Your task to perform on an android device: turn off location history Image 0: 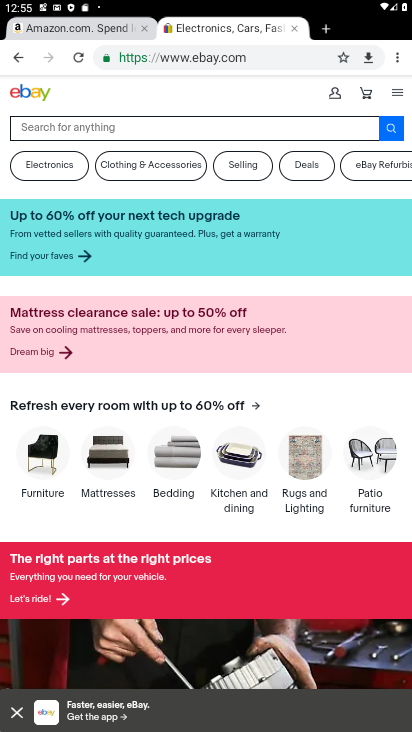
Step 0: press home button
Your task to perform on an android device: turn off location history Image 1: 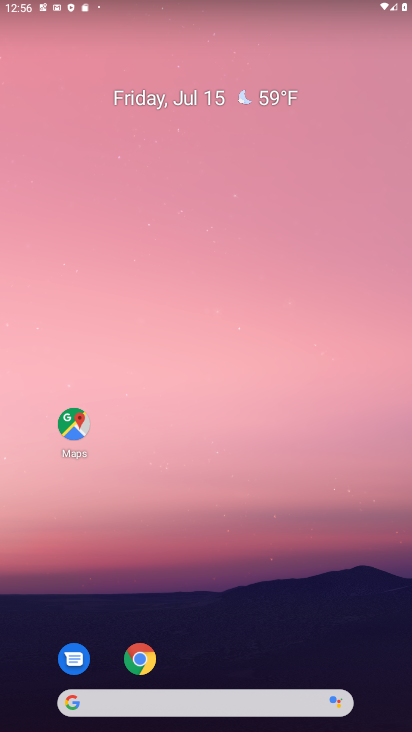
Step 1: drag from (241, 719) to (207, 183)
Your task to perform on an android device: turn off location history Image 2: 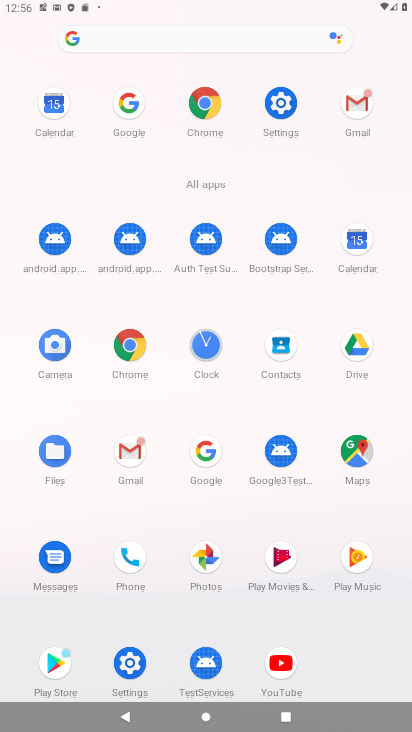
Step 2: click (278, 104)
Your task to perform on an android device: turn off location history Image 3: 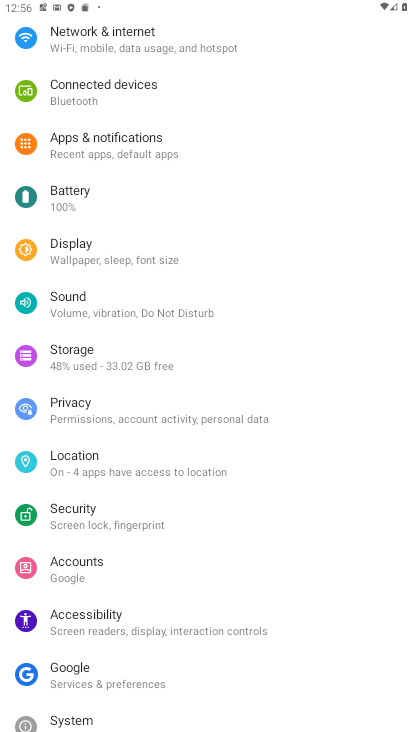
Step 3: click (76, 467)
Your task to perform on an android device: turn off location history Image 4: 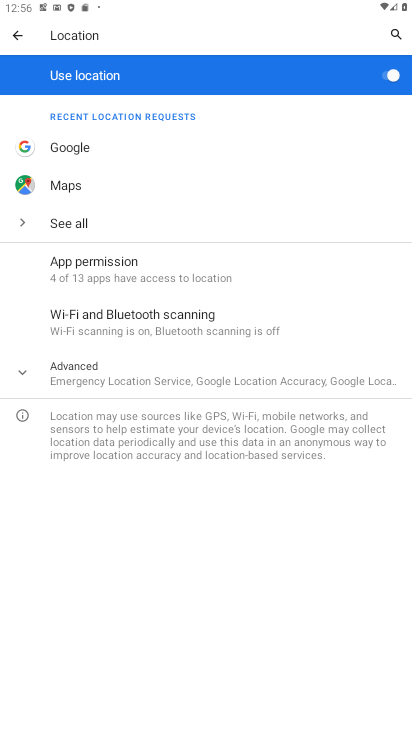
Step 4: click (66, 375)
Your task to perform on an android device: turn off location history Image 5: 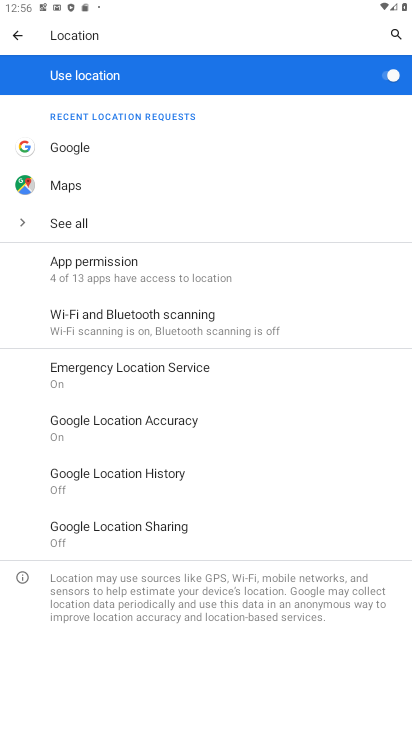
Step 5: click (71, 479)
Your task to perform on an android device: turn off location history Image 6: 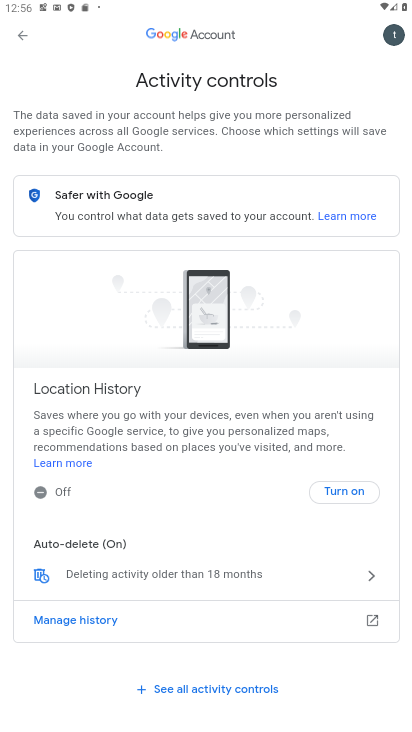
Step 6: task complete